Your task to perform on an android device: Search for usb-b on bestbuy, select the first entry, and add it to the cart. Image 0: 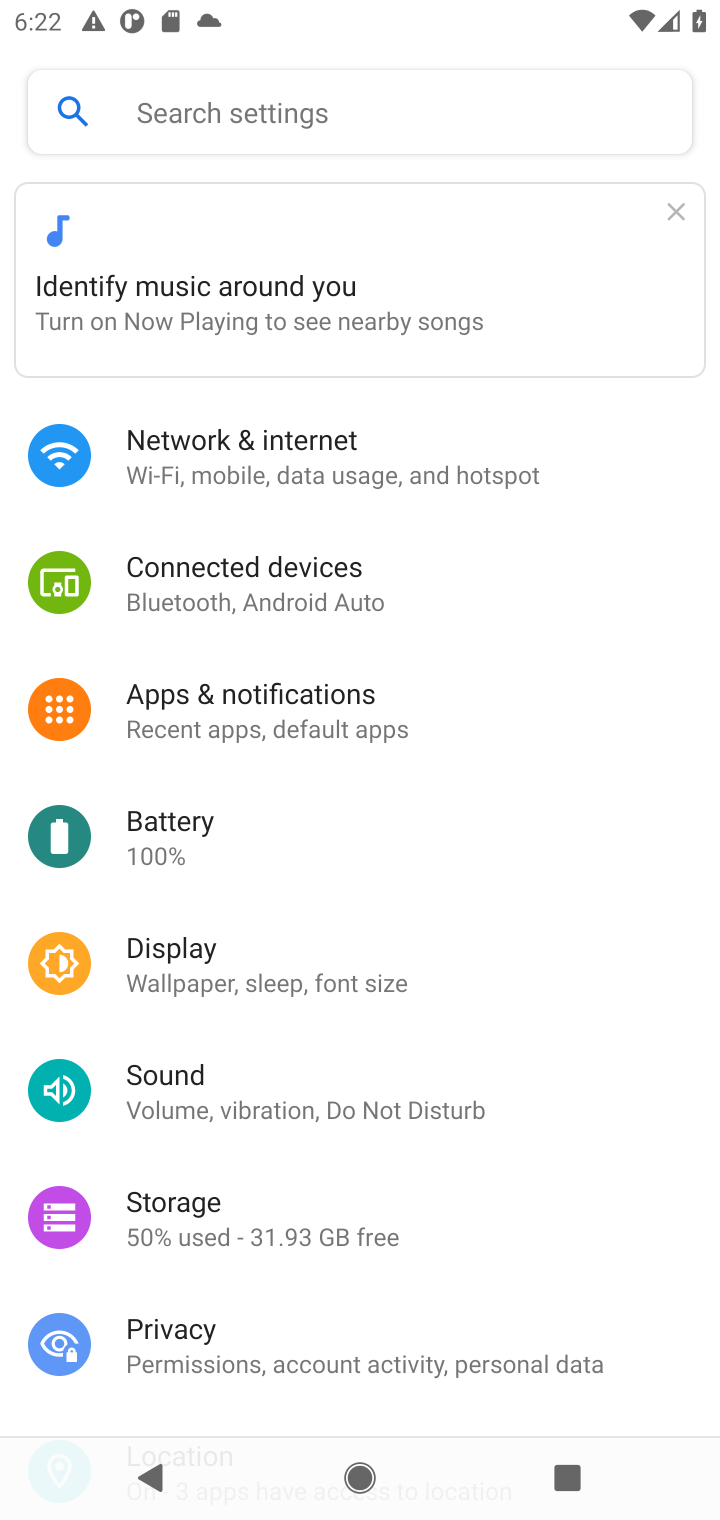
Step 0: press home button
Your task to perform on an android device: Search for usb-b on bestbuy, select the first entry, and add it to the cart. Image 1: 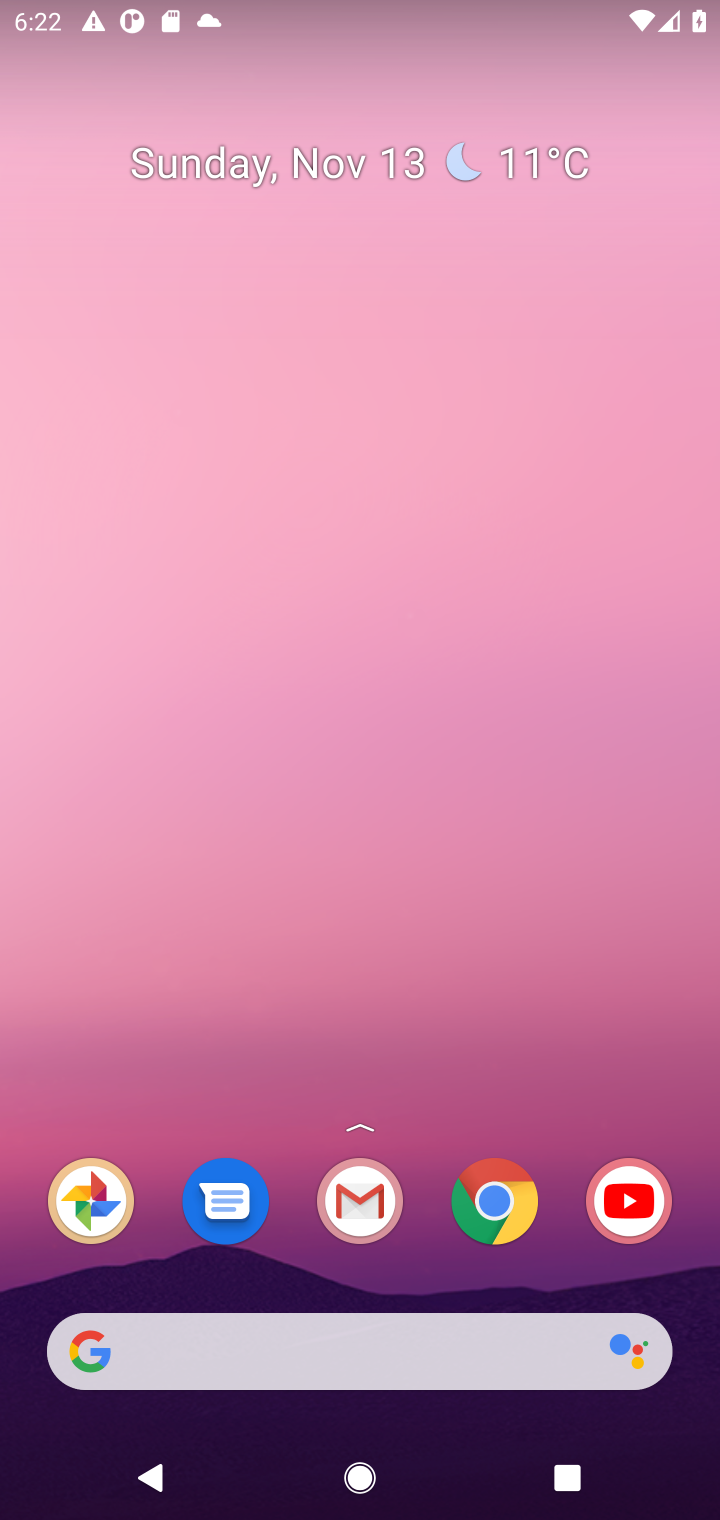
Step 1: drag from (417, 1291) to (306, 224)
Your task to perform on an android device: Search for usb-b on bestbuy, select the first entry, and add it to the cart. Image 2: 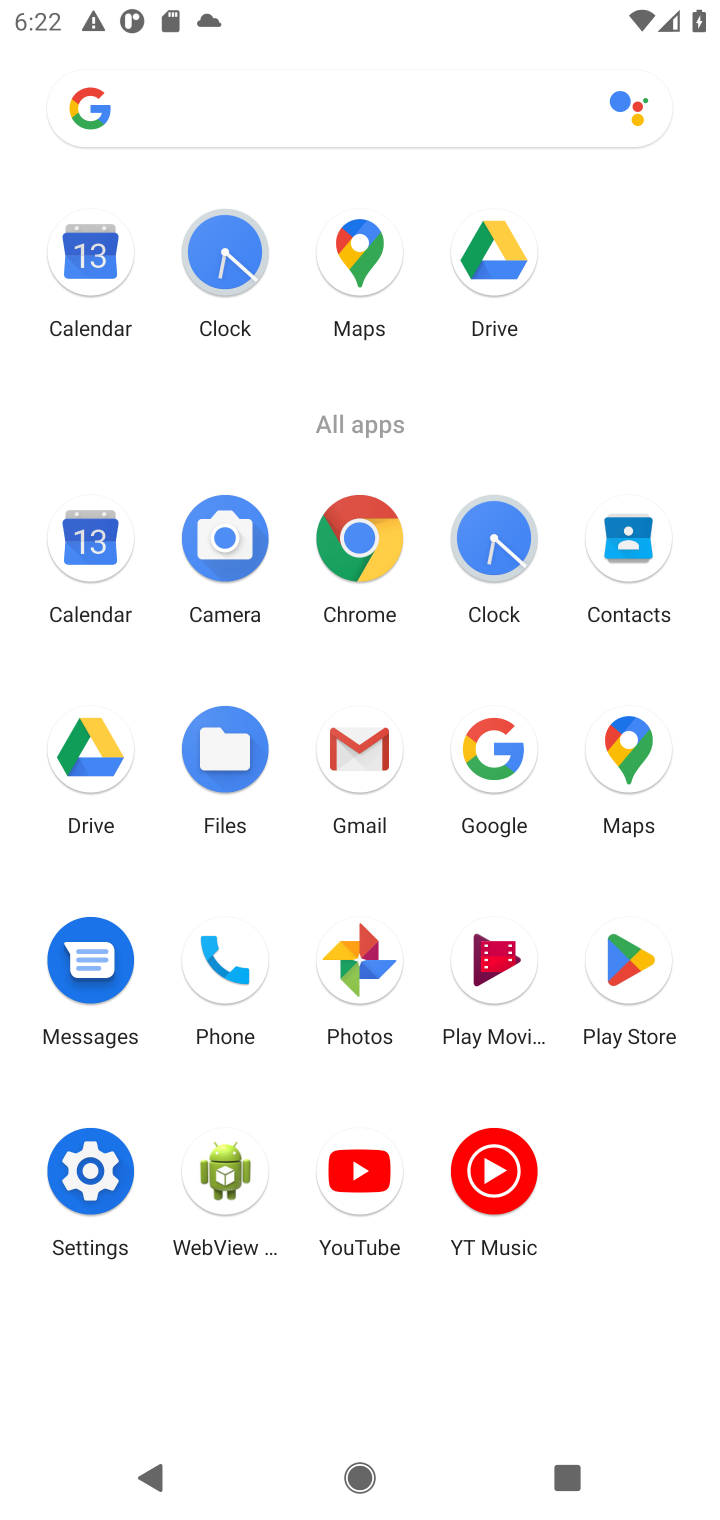
Step 2: click (350, 552)
Your task to perform on an android device: Search for usb-b on bestbuy, select the first entry, and add it to the cart. Image 3: 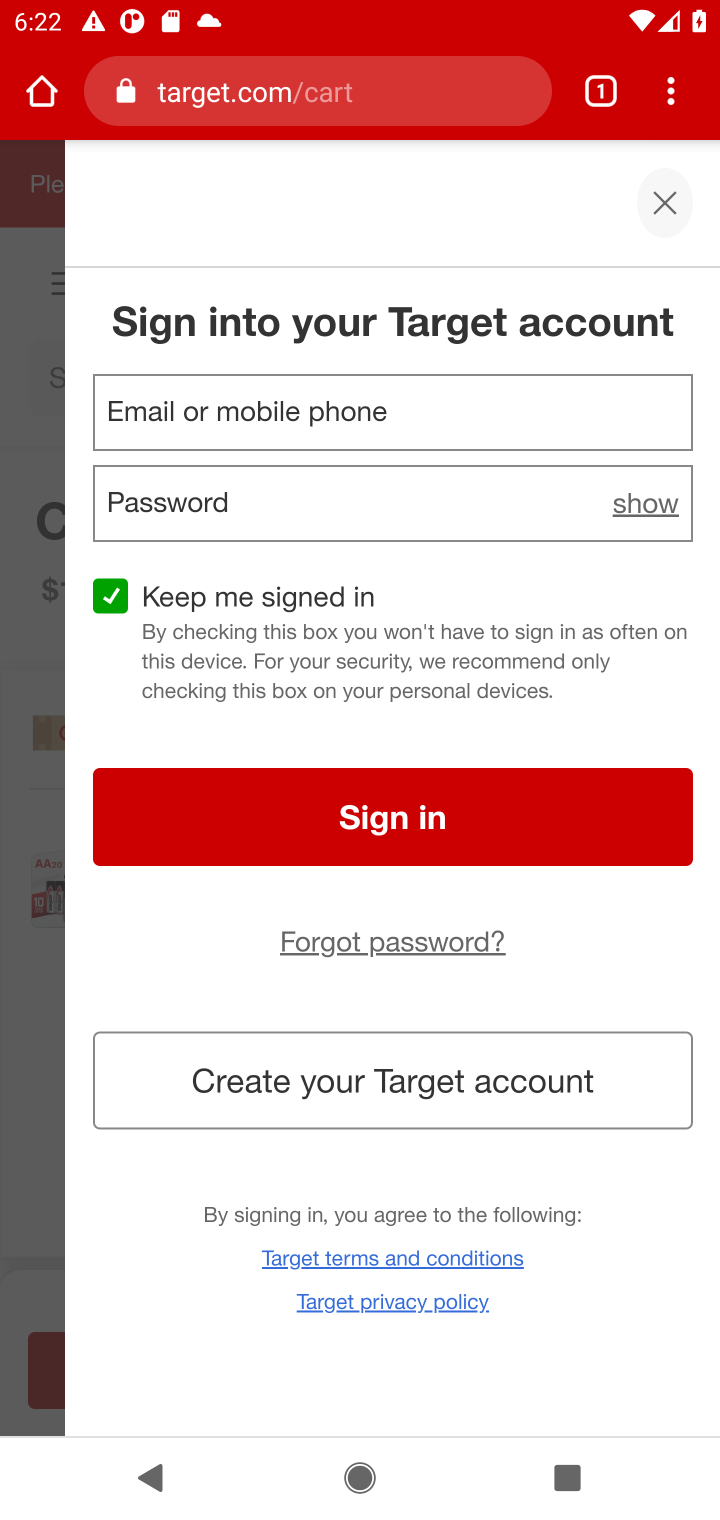
Step 3: click (341, 96)
Your task to perform on an android device: Search for usb-b on bestbuy, select the first entry, and add it to the cart. Image 4: 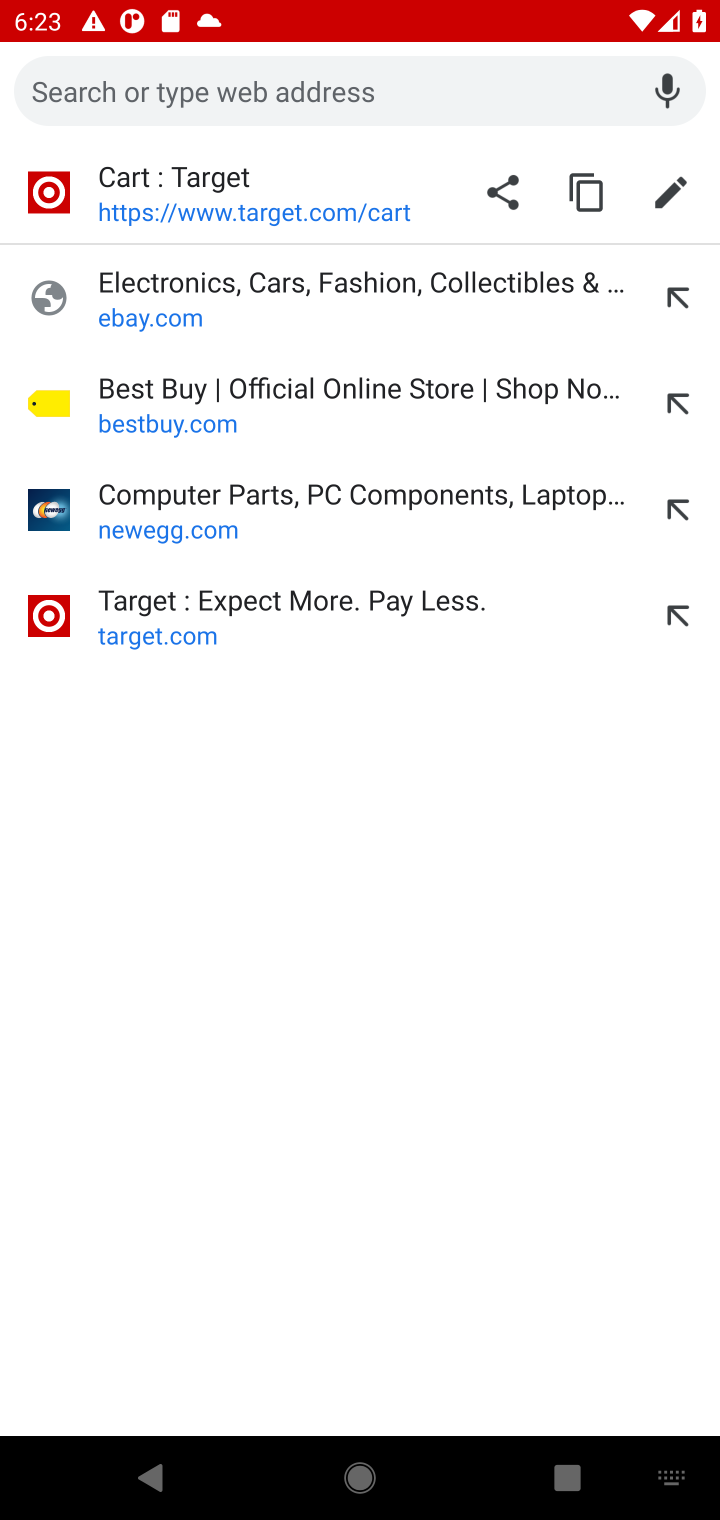
Step 4: type "bestbuy.com"
Your task to perform on an android device: Search for usb-b on bestbuy, select the first entry, and add it to the cart. Image 5: 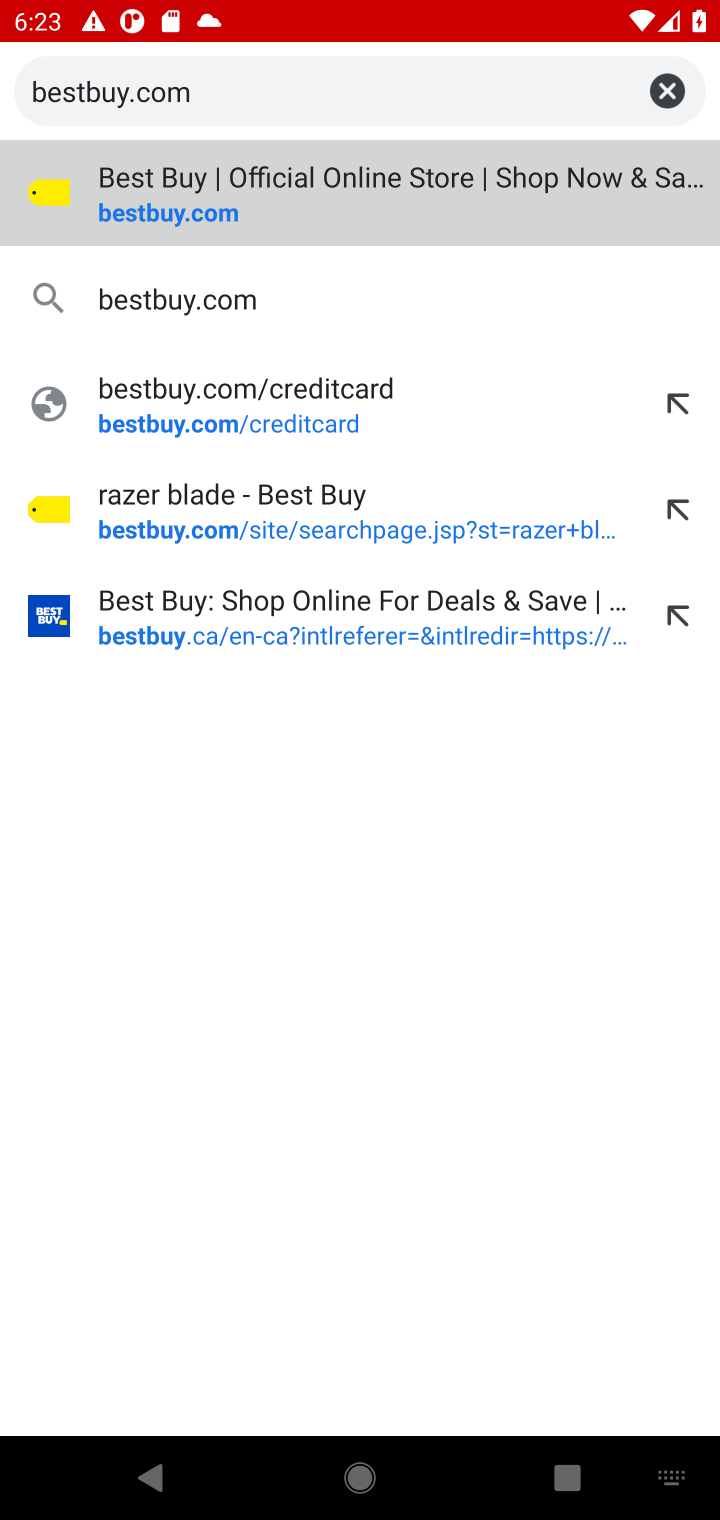
Step 5: press enter
Your task to perform on an android device: Search for usb-b on bestbuy, select the first entry, and add it to the cart. Image 6: 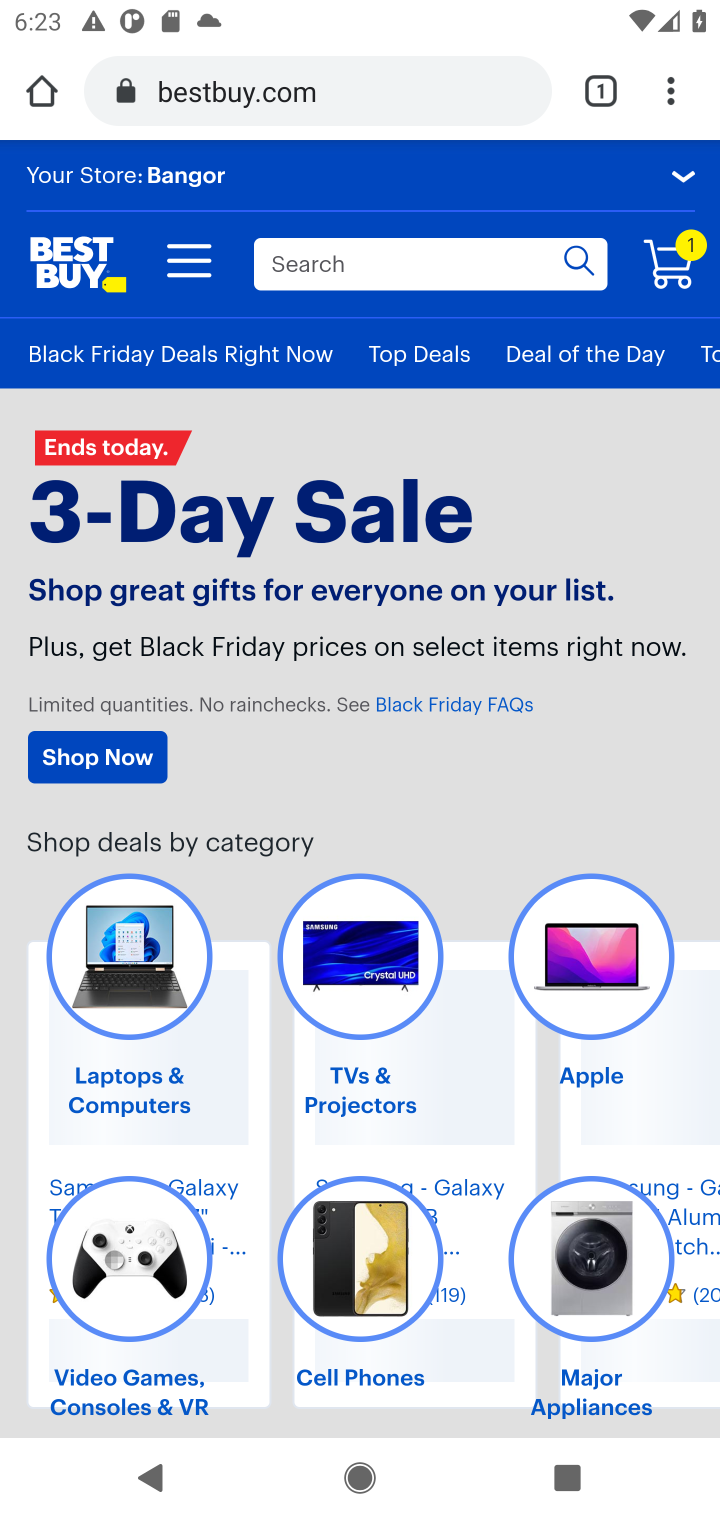
Step 6: click (507, 260)
Your task to perform on an android device: Search for usb-b on bestbuy, select the first entry, and add it to the cart. Image 7: 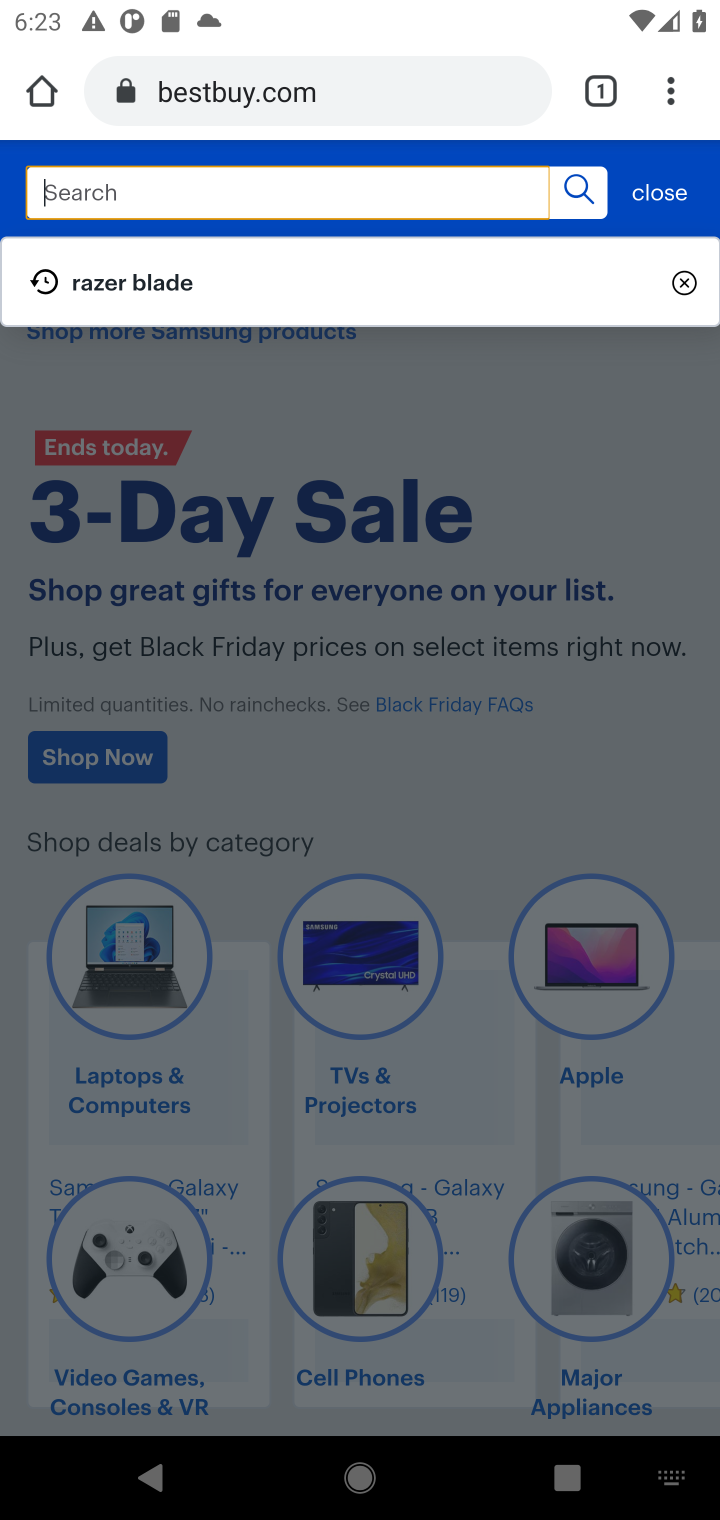
Step 7: type "usb-b"
Your task to perform on an android device: Search for usb-b on bestbuy, select the first entry, and add it to the cart. Image 8: 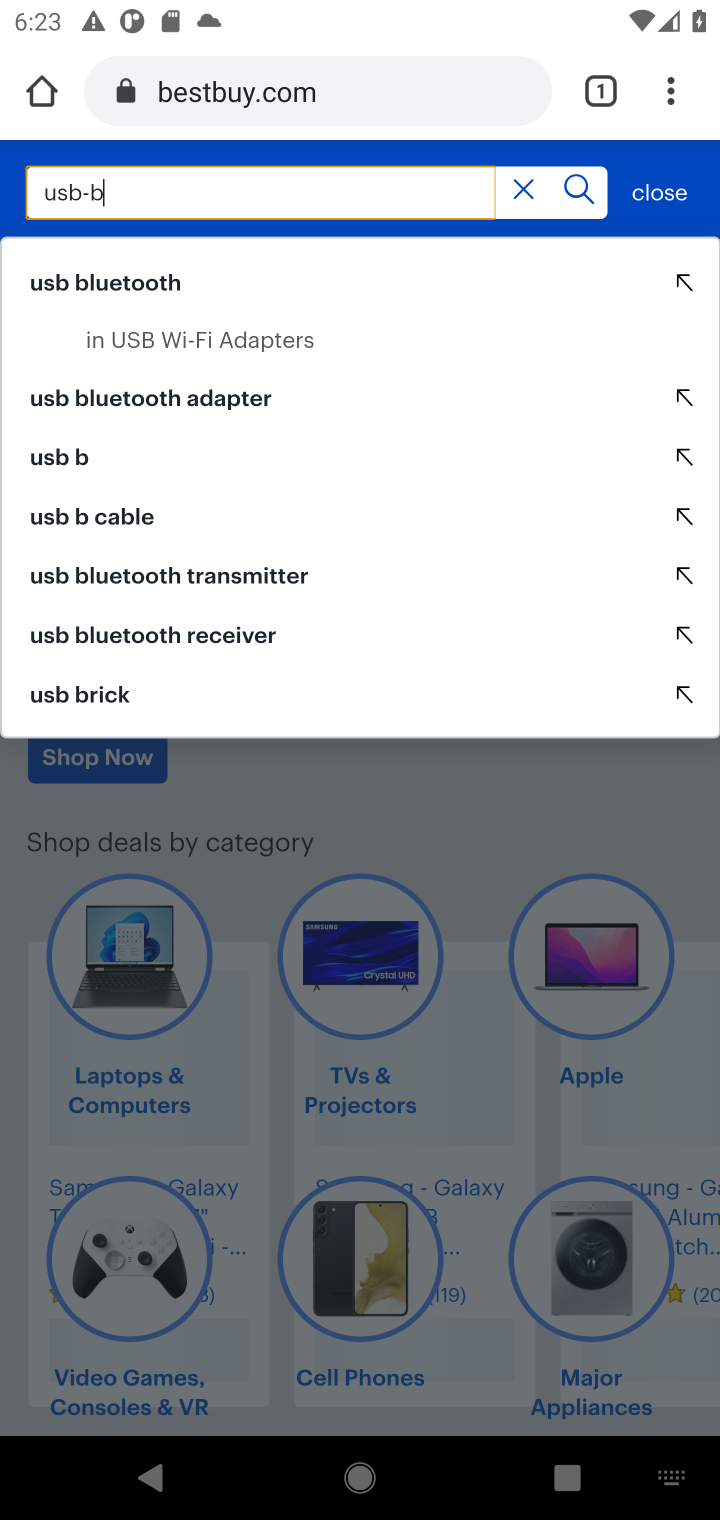
Step 8: press enter
Your task to perform on an android device: Search for usb-b on bestbuy, select the first entry, and add it to the cart. Image 9: 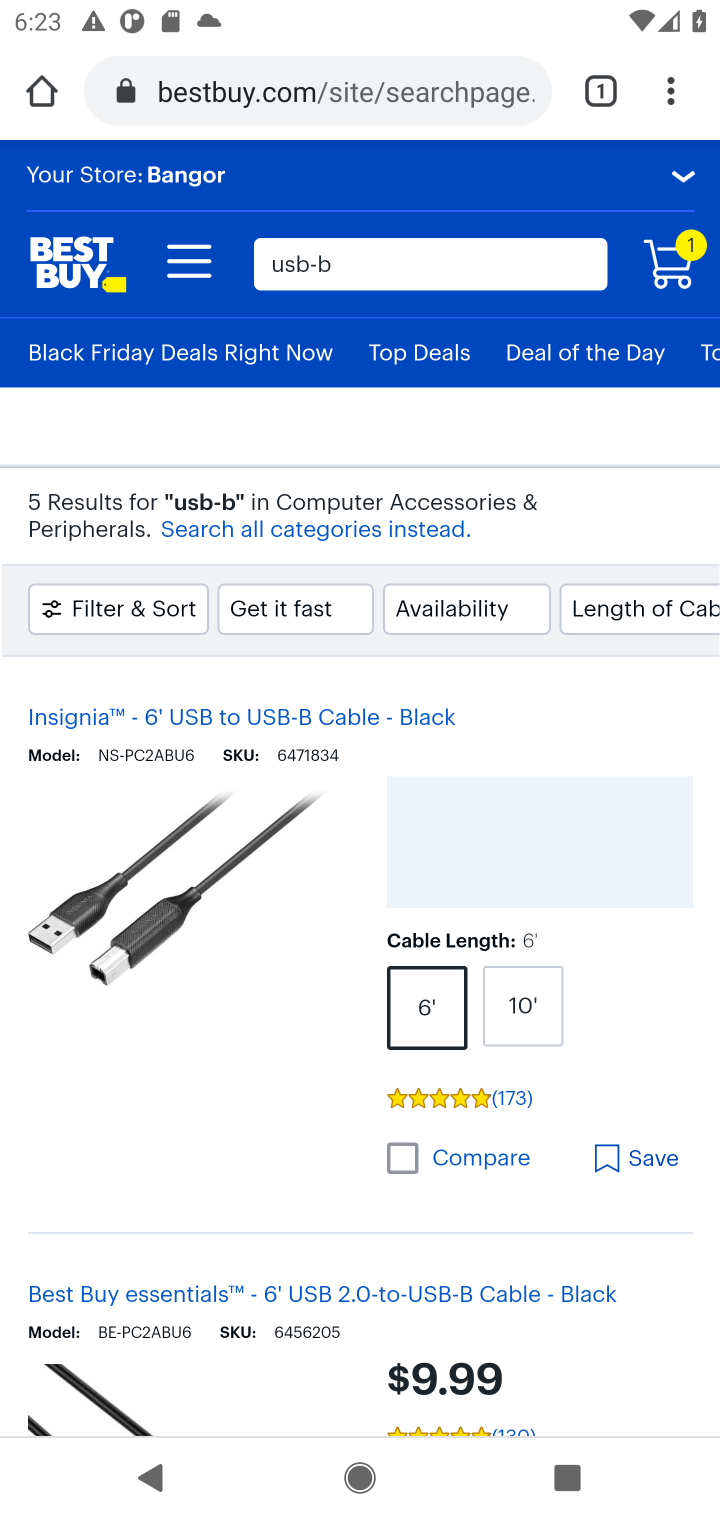
Step 9: drag from (313, 1254) to (284, 987)
Your task to perform on an android device: Search for usb-b on bestbuy, select the first entry, and add it to the cart. Image 10: 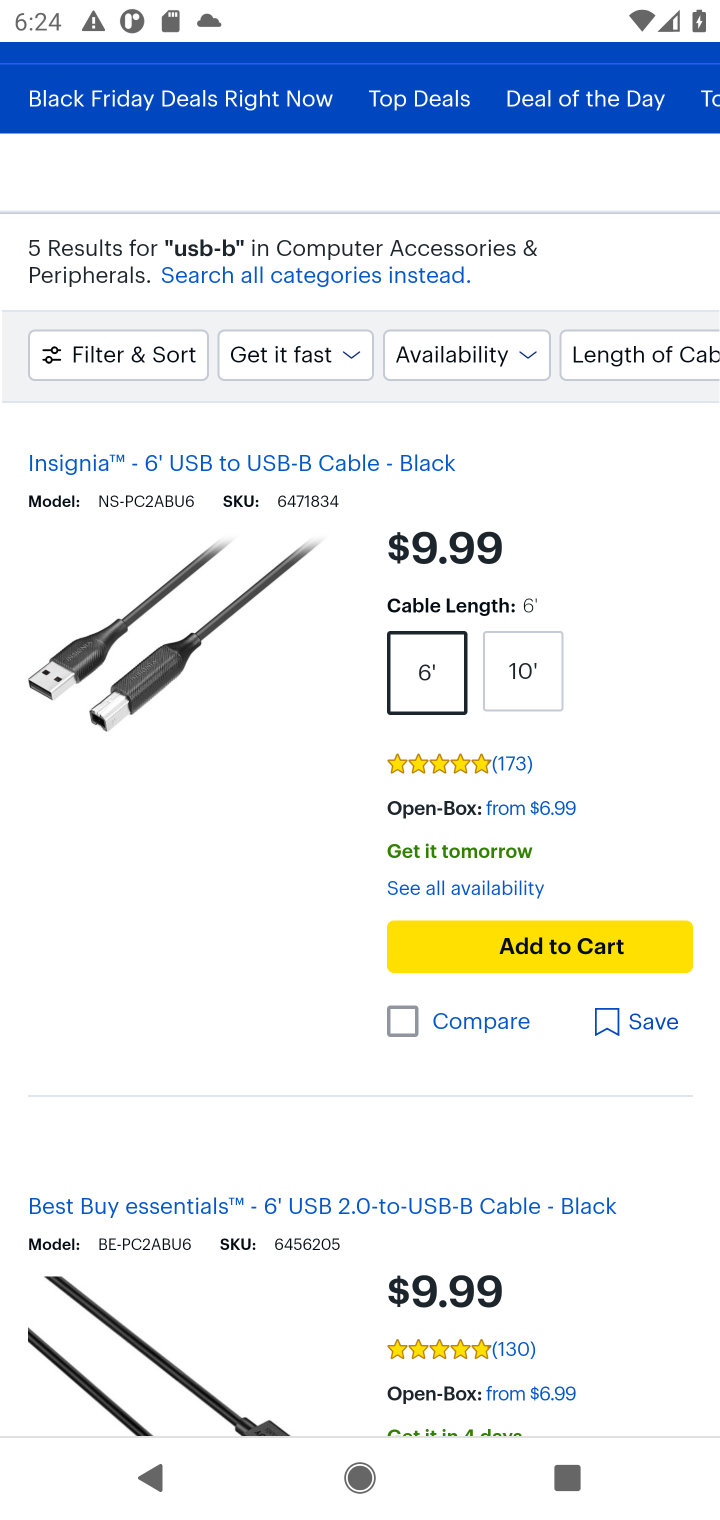
Step 10: click (613, 968)
Your task to perform on an android device: Search for usb-b on bestbuy, select the first entry, and add it to the cart. Image 11: 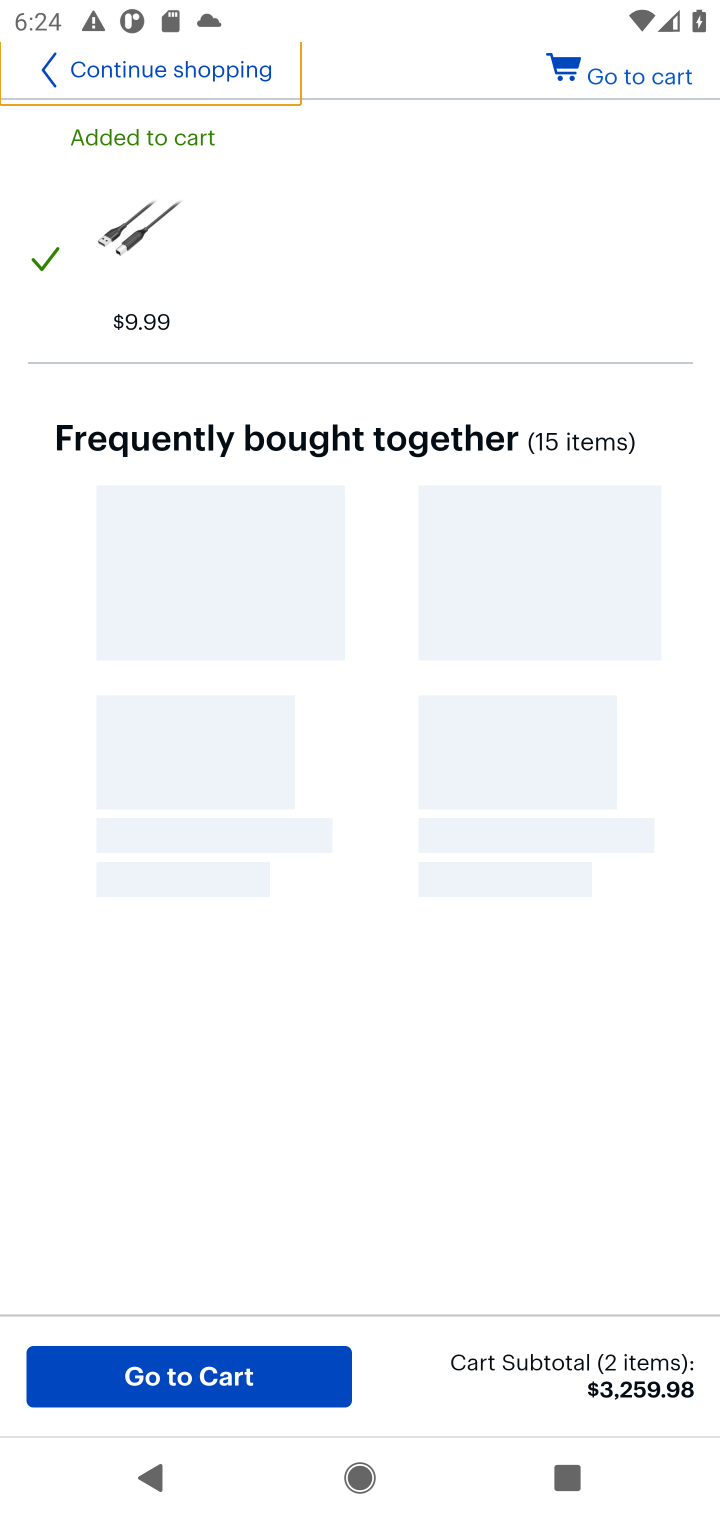
Step 11: task complete